Your task to perform on an android device: delete the emails in spam in the gmail app Image 0: 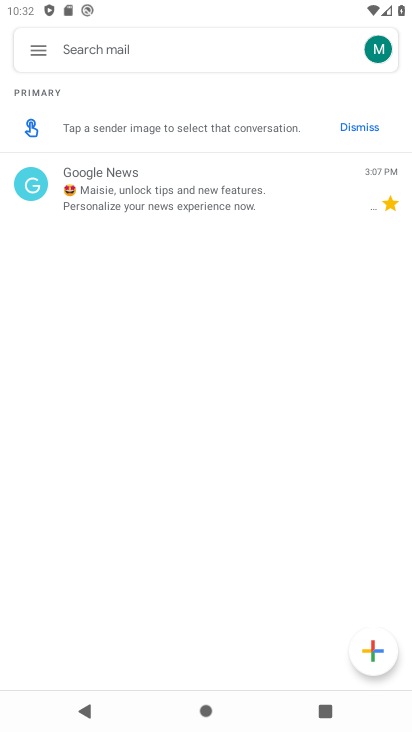
Step 0: drag from (212, 504) to (209, 191)
Your task to perform on an android device: delete the emails in spam in the gmail app Image 1: 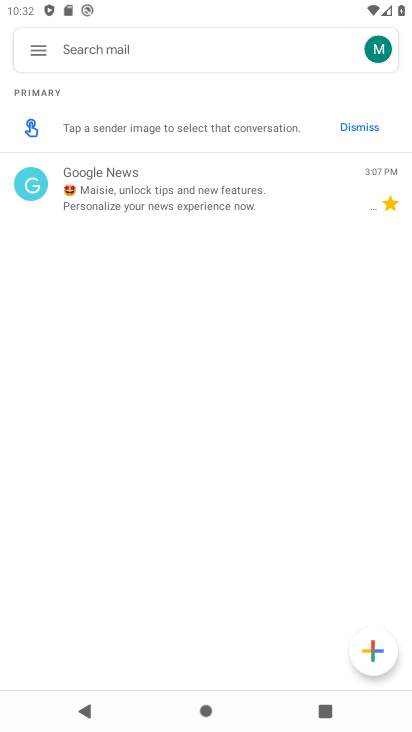
Step 1: click (142, 210)
Your task to perform on an android device: delete the emails in spam in the gmail app Image 2: 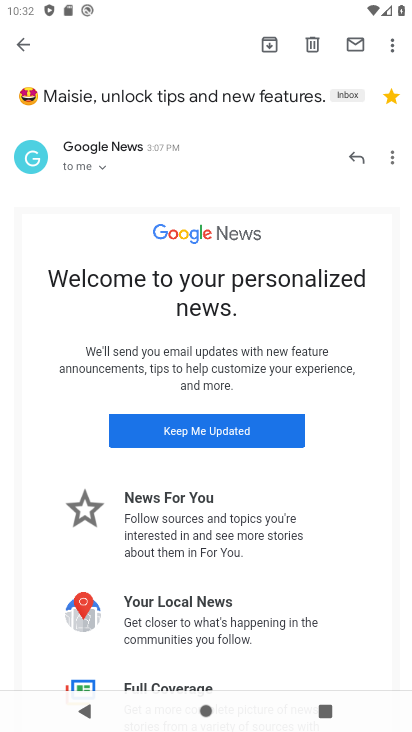
Step 2: click (293, 42)
Your task to perform on an android device: delete the emails in spam in the gmail app Image 3: 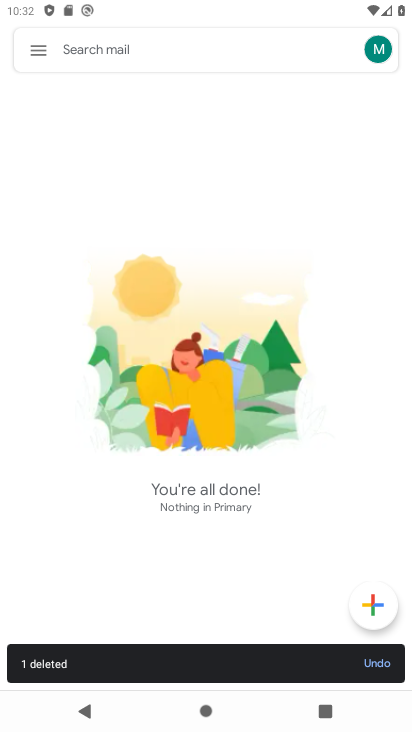
Step 3: task complete